Your task to perform on an android device: Open Wikipedia Image 0: 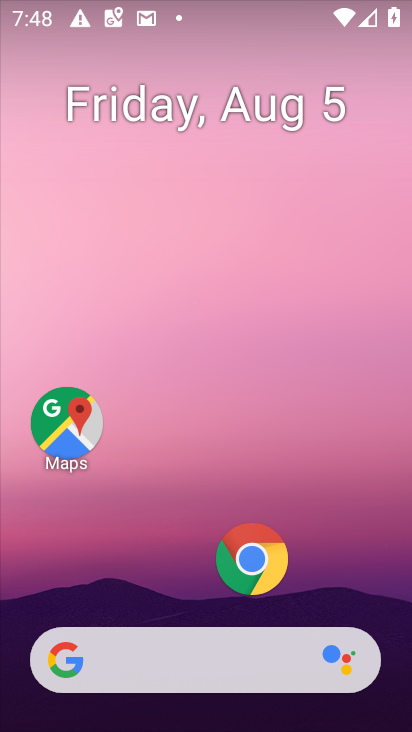
Step 0: click (260, 563)
Your task to perform on an android device: Open Wikipedia Image 1: 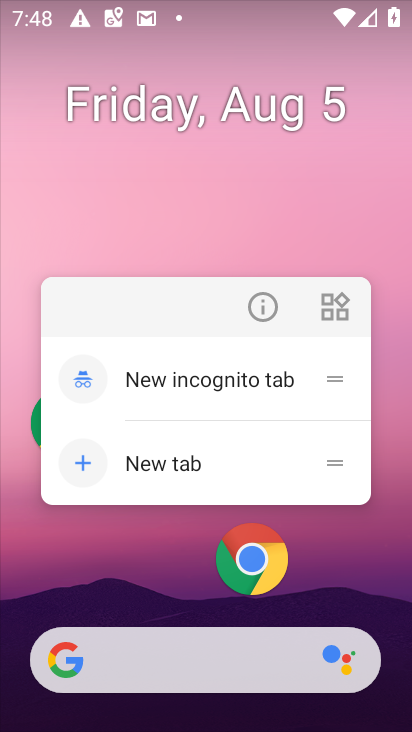
Step 1: click (260, 563)
Your task to perform on an android device: Open Wikipedia Image 2: 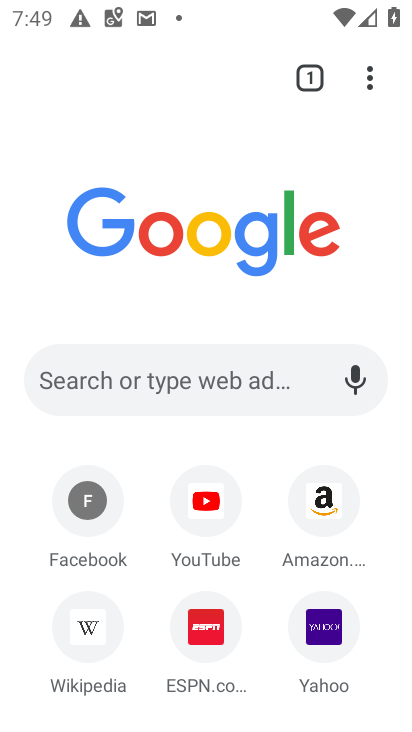
Step 2: click (84, 643)
Your task to perform on an android device: Open Wikipedia Image 3: 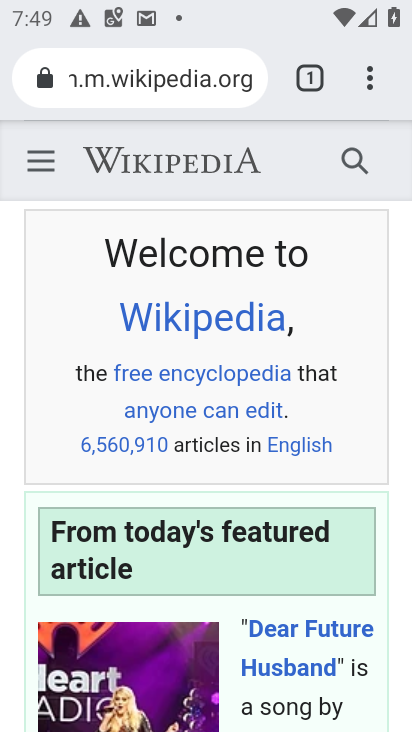
Step 3: task complete